Your task to perform on an android device: Open my contact list Image 0: 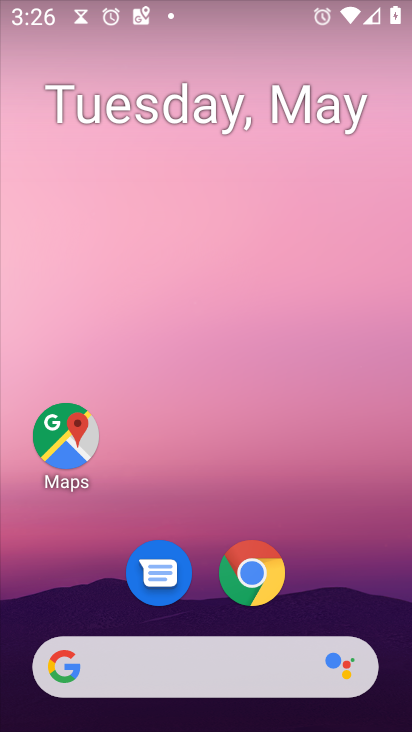
Step 0: drag from (319, 576) to (227, 17)
Your task to perform on an android device: Open my contact list Image 1: 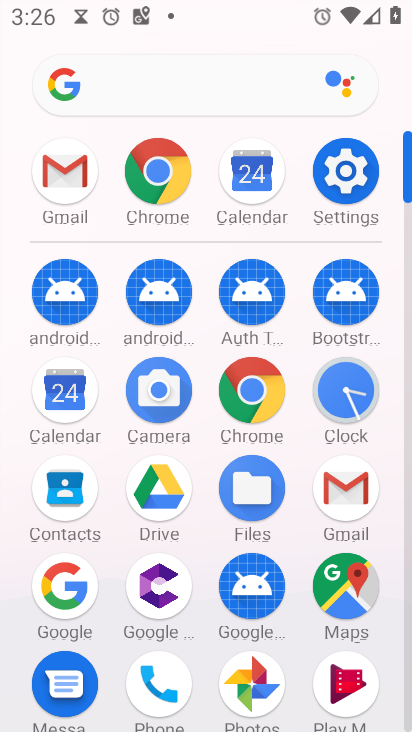
Step 1: drag from (4, 602) to (36, 174)
Your task to perform on an android device: Open my contact list Image 2: 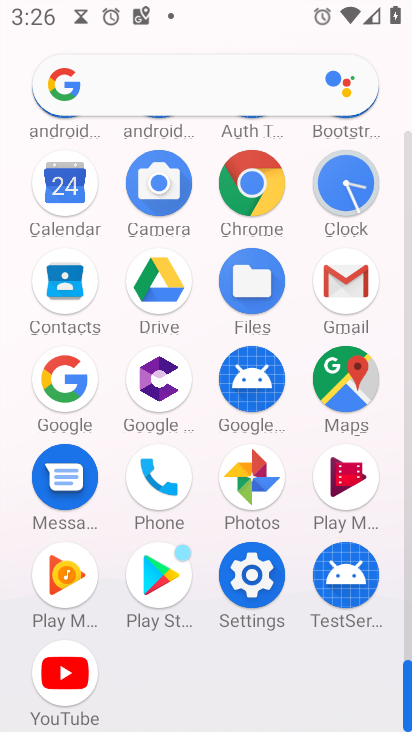
Step 2: click (150, 475)
Your task to perform on an android device: Open my contact list Image 3: 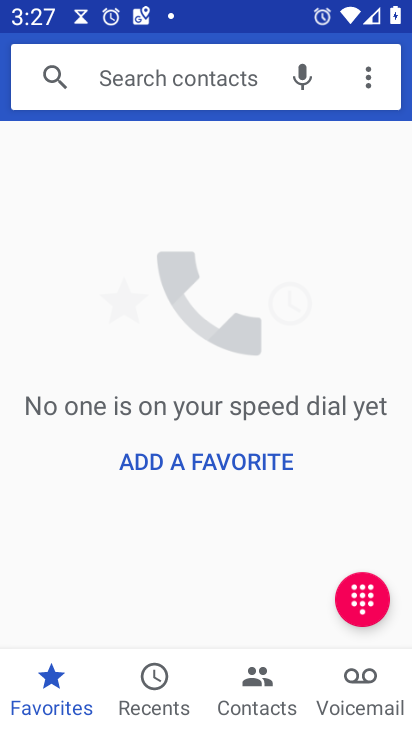
Step 3: drag from (179, 108) to (178, 443)
Your task to perform on an android device: Open my contact list Image 4: 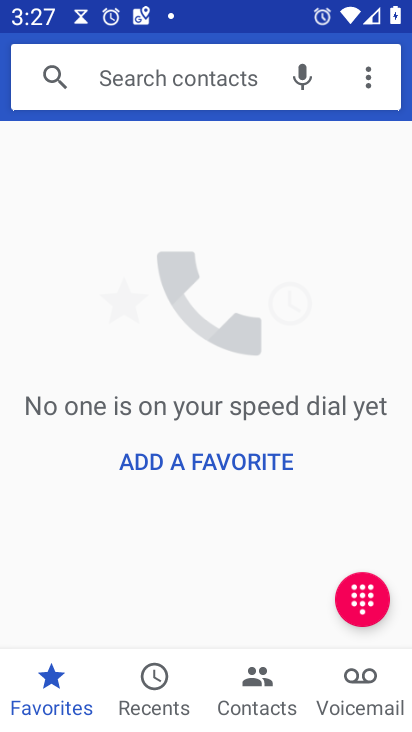
Step 4: click (275, 694)
Your task to perform on an android device: Open my contact list Image 5: 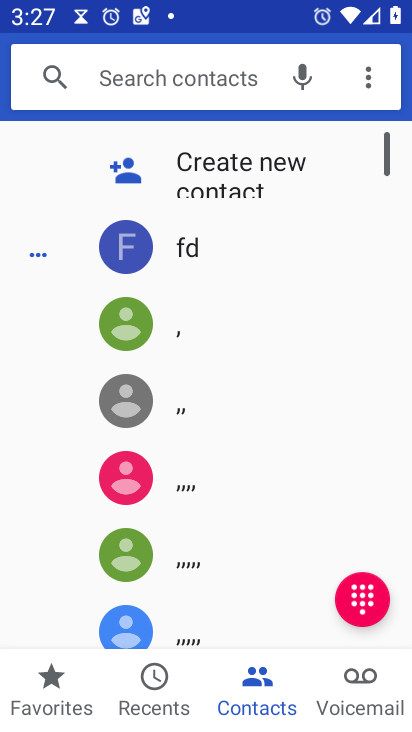
Step 5: drag from (260, 485) to (235, 179)
Your task to perform on an android device: Open my contact list Image 6: 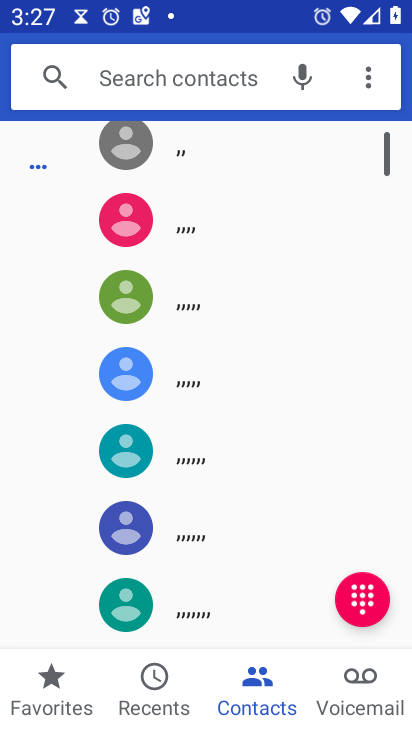
Step 6: drag from (252, 590) to (216, 228)
Your task to perform on an android device: Open my contact list Image 7: 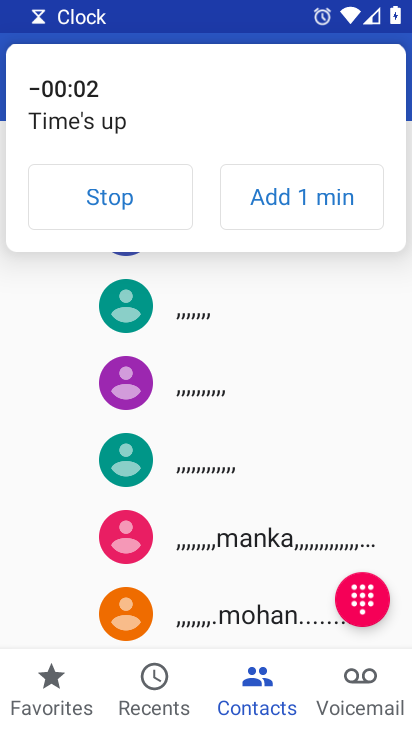
Step 7: click (99, 203)
Your task to perform on an android device: Open my contact list Image 8: 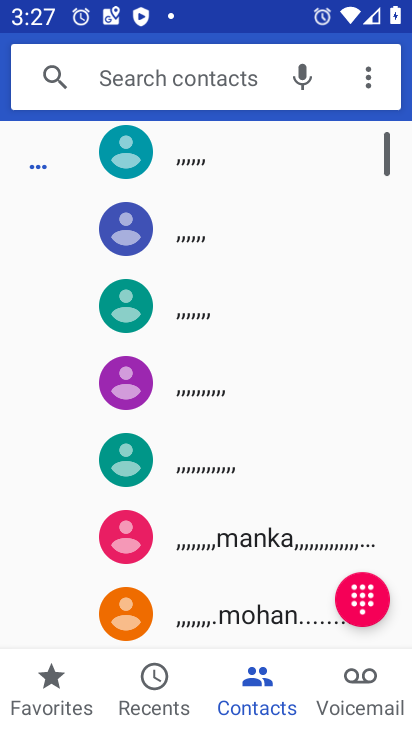
Step 8: task complete